Your task to perform on an android device: Go to Amazon Image 0: 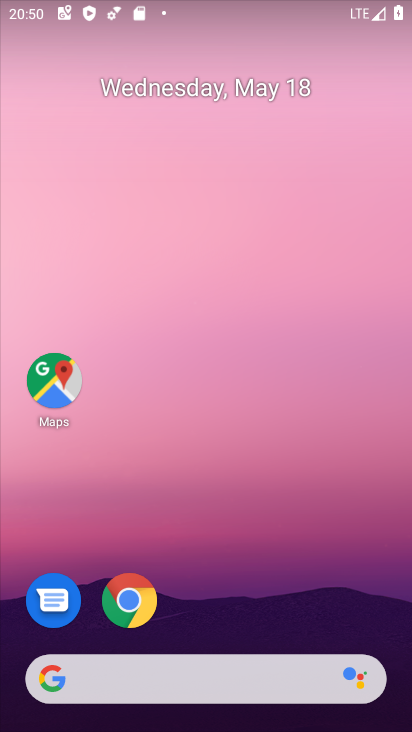
Step 0: click (126, 595)
Your task to perform on an android device: Go to Amazon Image 1: 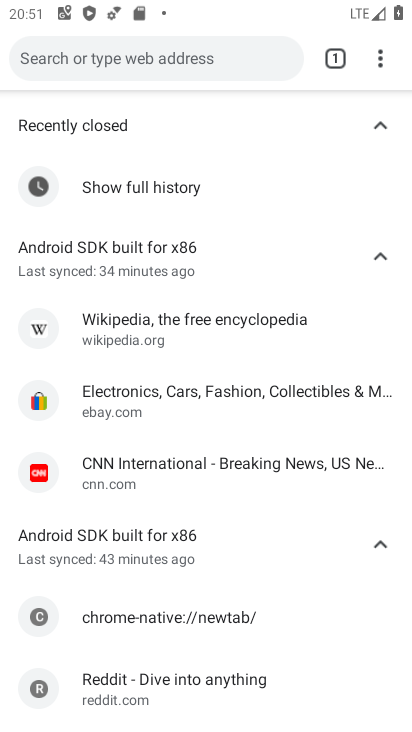
Step 1: click (331, 54)
Your task to perform on an android device: Go to Amazon Image 2: 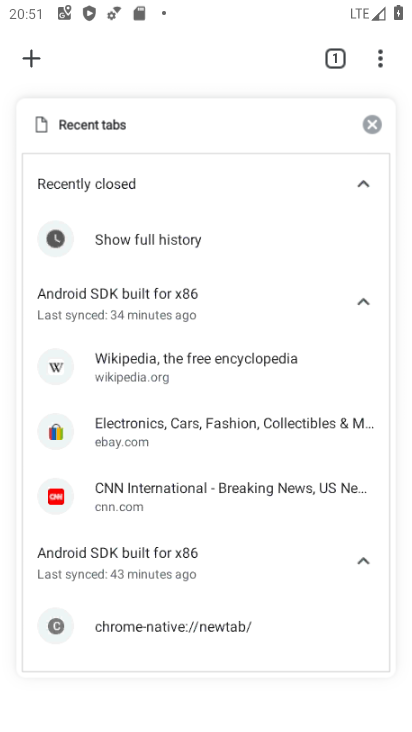
Step 2: click (14, 53)
Your task to perform on an android device: Go to Amazon Image 3: 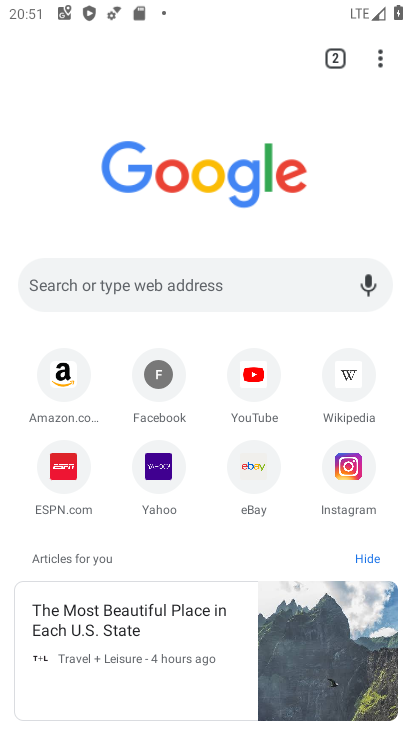
Step 3: click (56, 369)
Your task to perform on an android device: Go to Amazon Image 4: 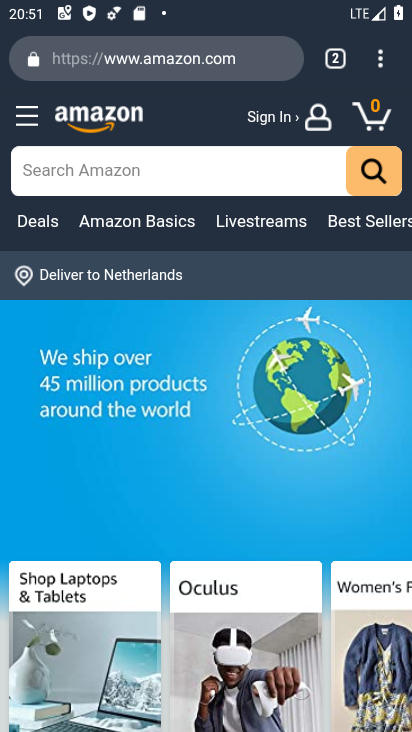
Step 4: task complete